Your task to perform on an android device: toggle airplane mode Image 0: 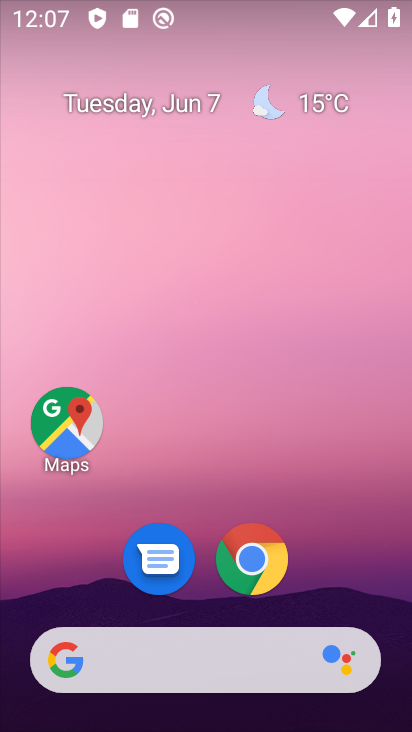
Step 0: drag from (382, 550) to (332, 107)
Your task to perform on an android device: toggle airplane mode Image 1: 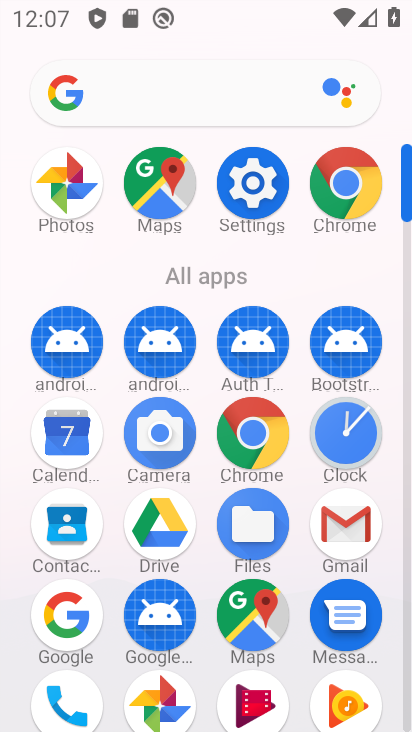
Step 1: click (409, 696)
Your task to perform on an android device: toggle airplane mode Image 2: 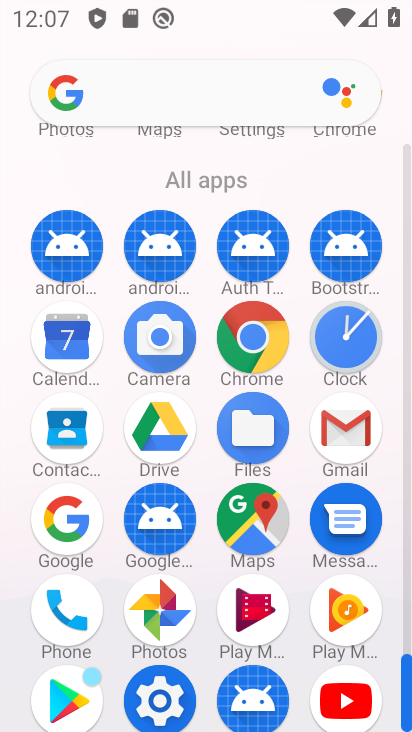
Step 2: click (162, 698)
Your task to perform on an android device: toggle airplane mode Image 3: 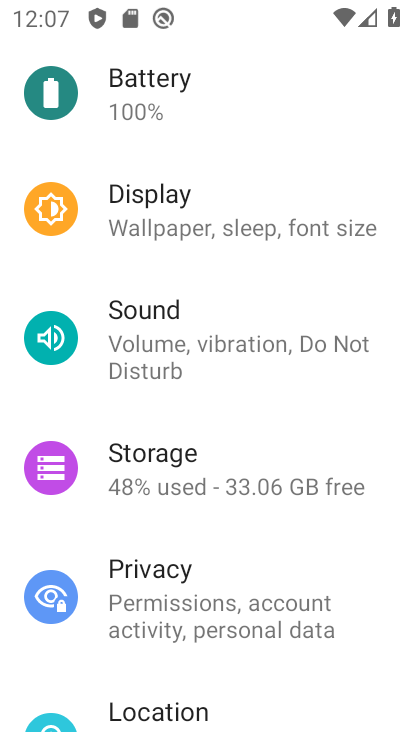
Step 3: drag from (346, 134) to (346, 498)
Your task to perform on an android device: toggle airplane mode Image 4: 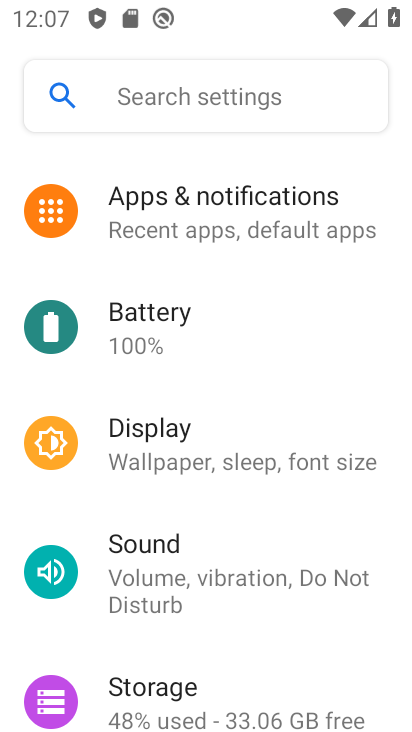
Step 4: drag from (352, 250) to (345, 540)
Your task to perform on an android device: toggle airplane mode Image 5: 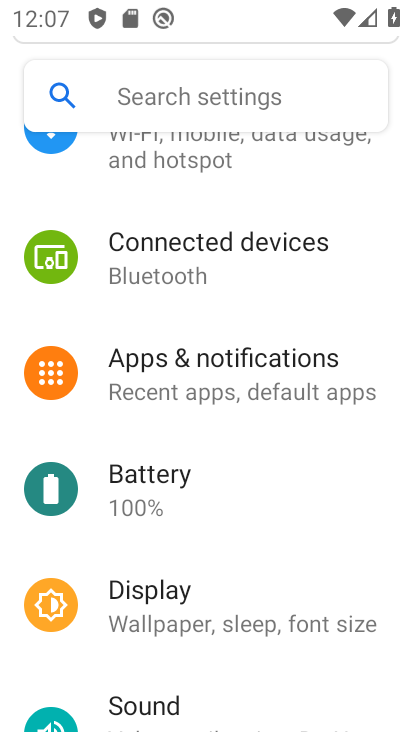
Step 5: drag from (258, 235) to (252, 454)
Your task to perform on an android device: toggle airplane mode Image 6: 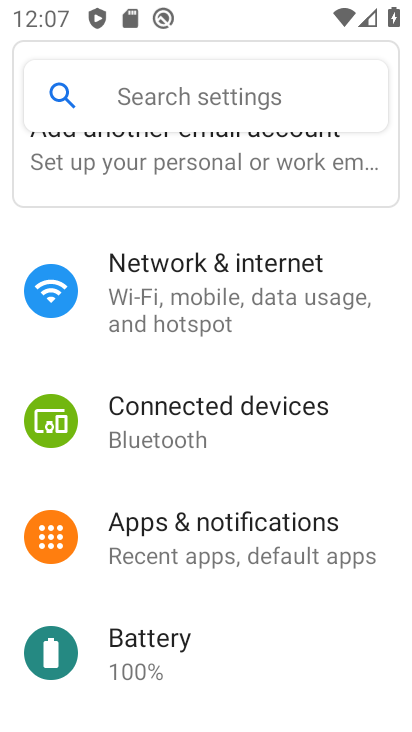
Step 6: click (176, 259)
Your task to perform on an android device: toggle airplane mode Image 7: 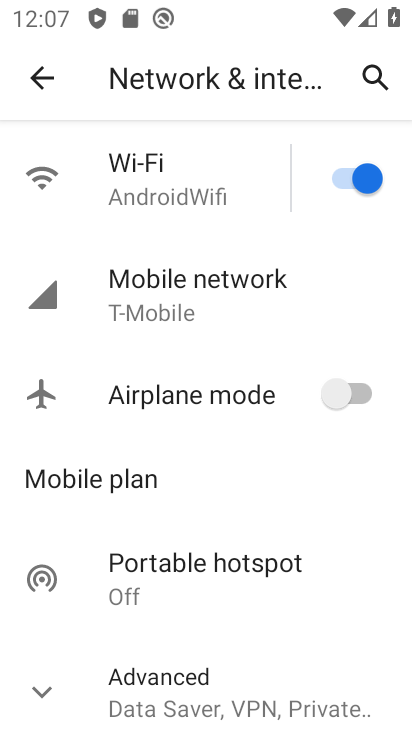
Step 7: click (367, 391)
Your task to perform on an android device: toggle airplane mode Image 8: 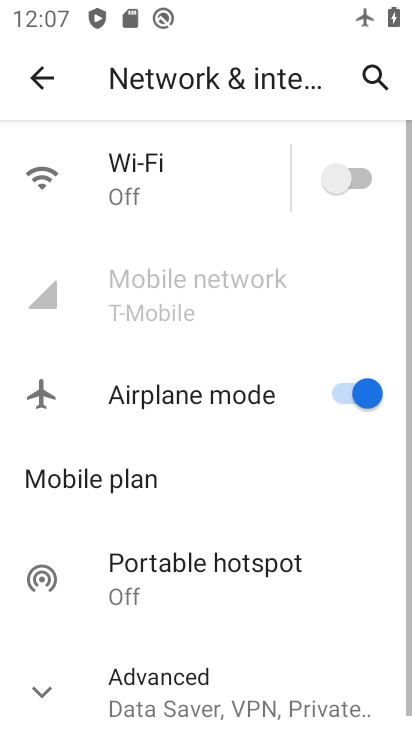
Step 8: task complete